Your task to perform on an android device: create a new album in the google photos Image 0: 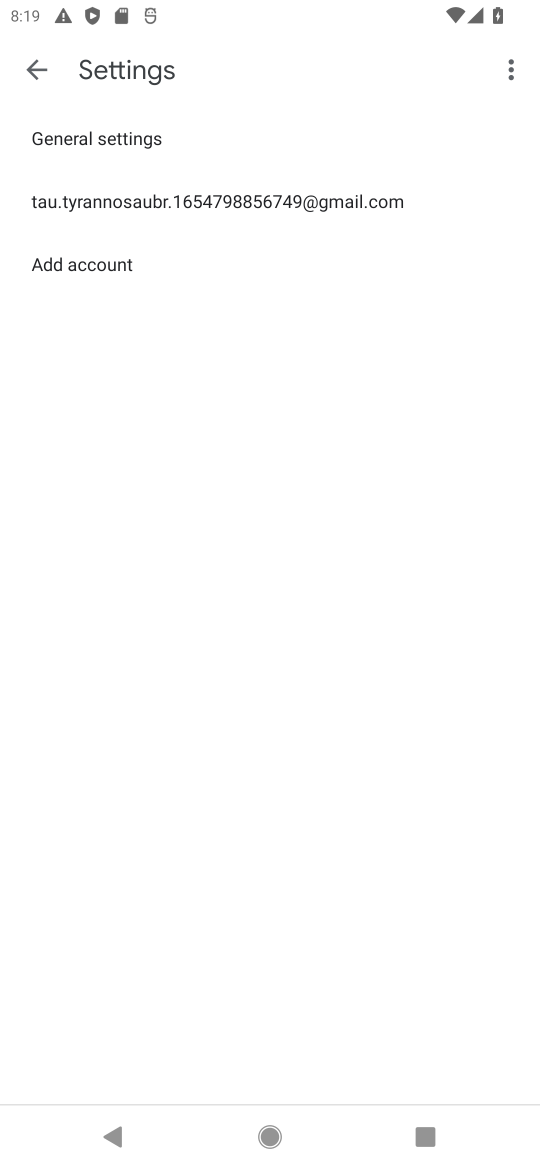
Step 0: press home button
Your task to perform on an android device: create a new album in the google photos Image 1: 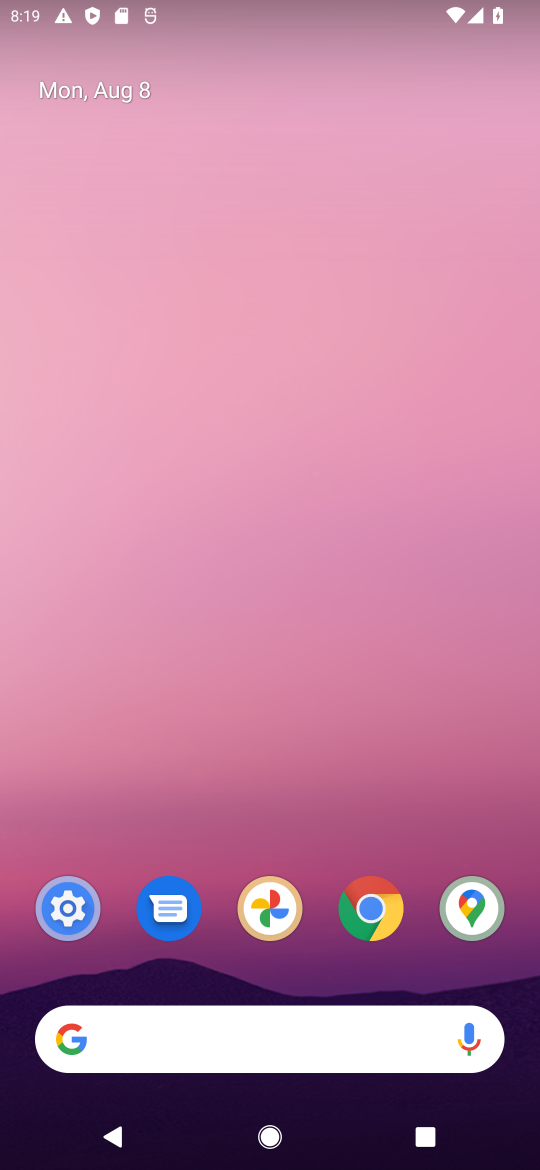
Step 1: click (272, 923)
Your task to perform on an android device: create a new album in the google photos Image 2: 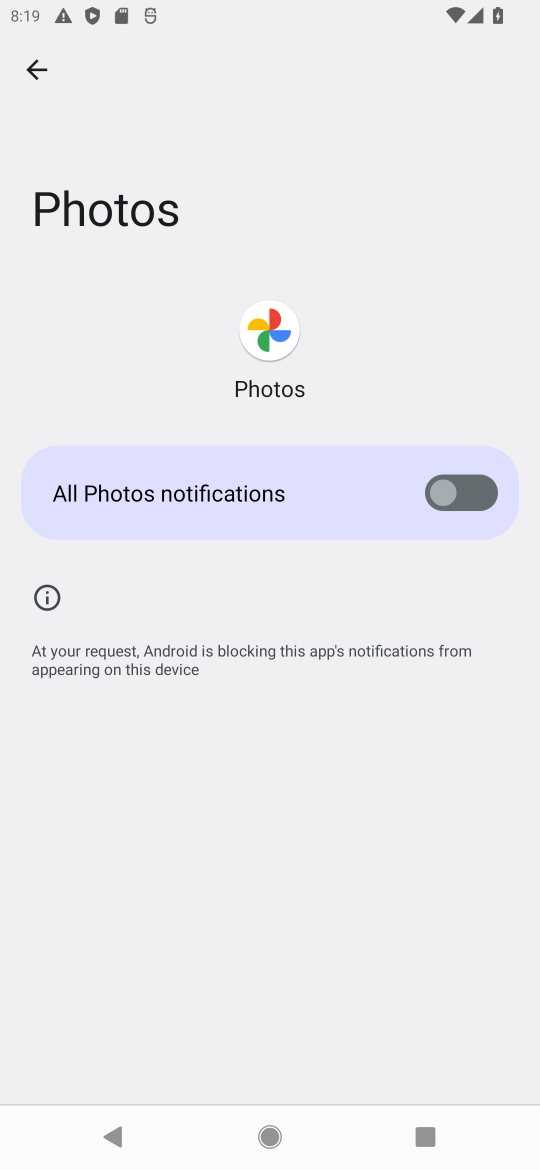
Step 2: click (52, 85)
Your task to perform on an android device: create a new album in the google photos Image 3: 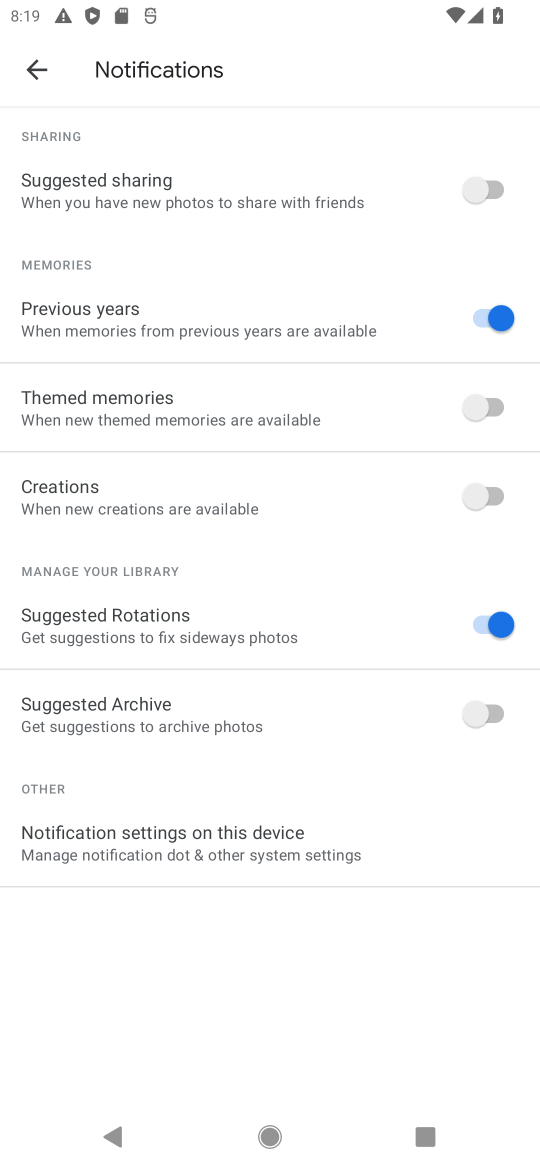
Step 3: click (52, 85)
Your task to perform on an android device: create a new album in the google photos Image 4: 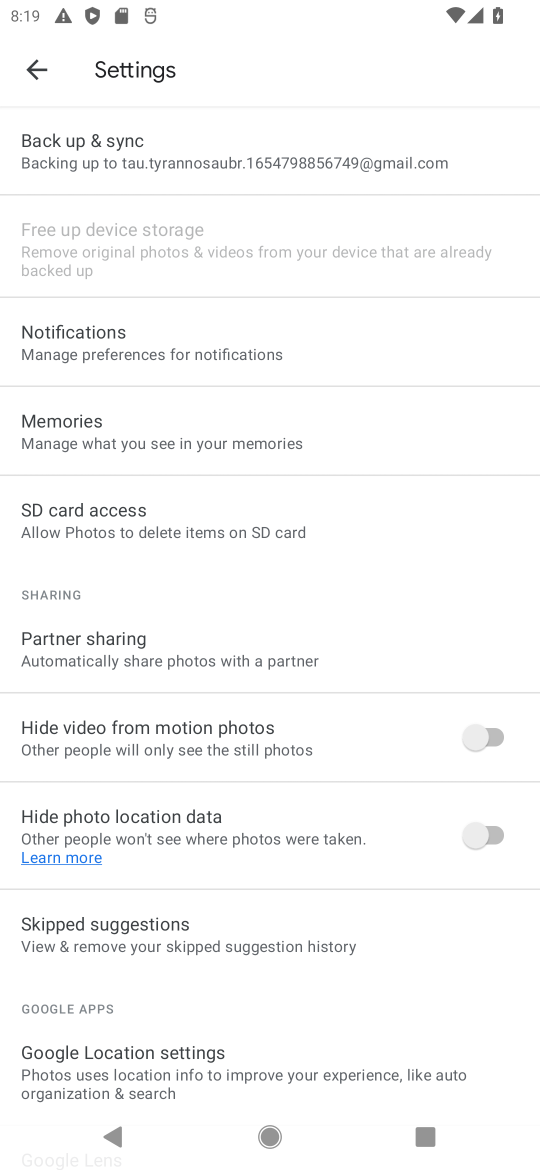
Step 4: click (52, 85)
Your task to perform on an android device: create a new album in the google photos Image 5: 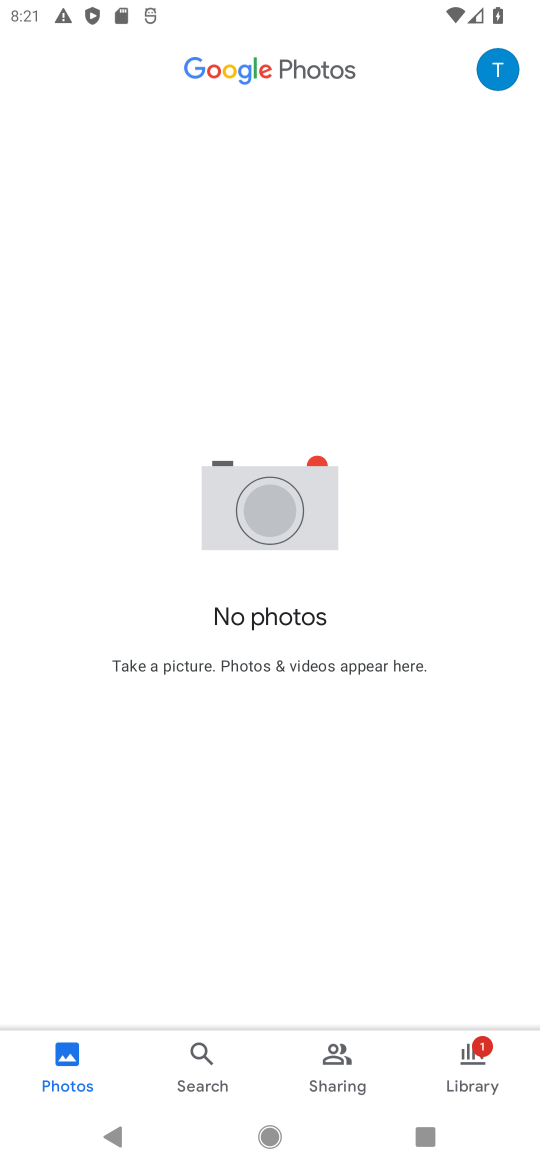
Step 5: task complete